Your task to perform on an android device: Open Google Maps Image 0: 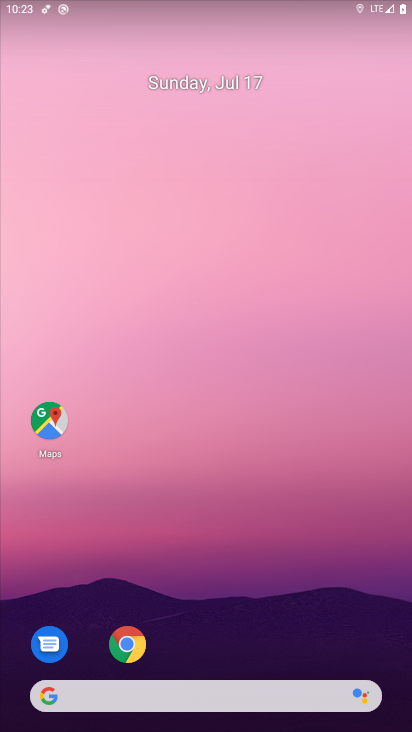
Step 0: press home button
Your task to perform on an android device: Open Google Maps Image 1: 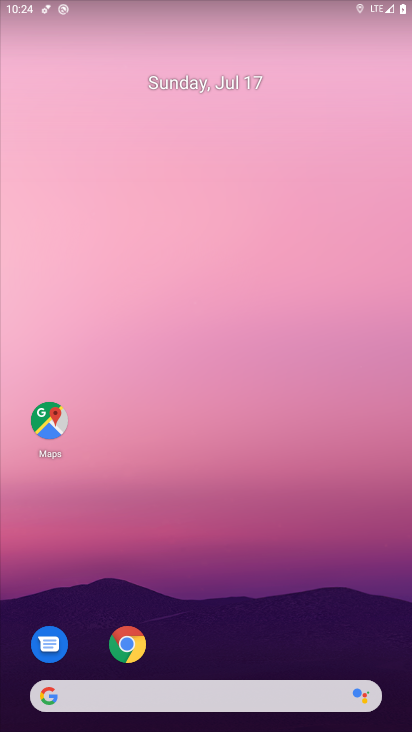
Step 1: drag from (255, 645) to (274, 24)
Your task to perform on an android device: Open Google Maps Image 2: 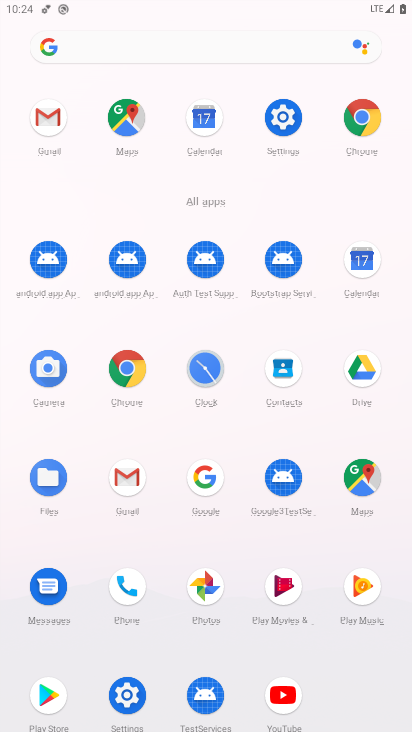
Step 2: click (130, 115)
Your task to perform on an android device: Open Google Maps Image 3: 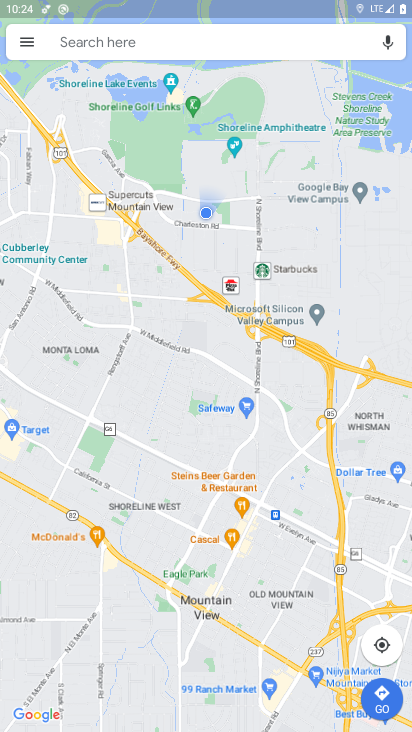
Step 3: task complete